Your task to perform on an android device: Go to privacy settings Image 0: 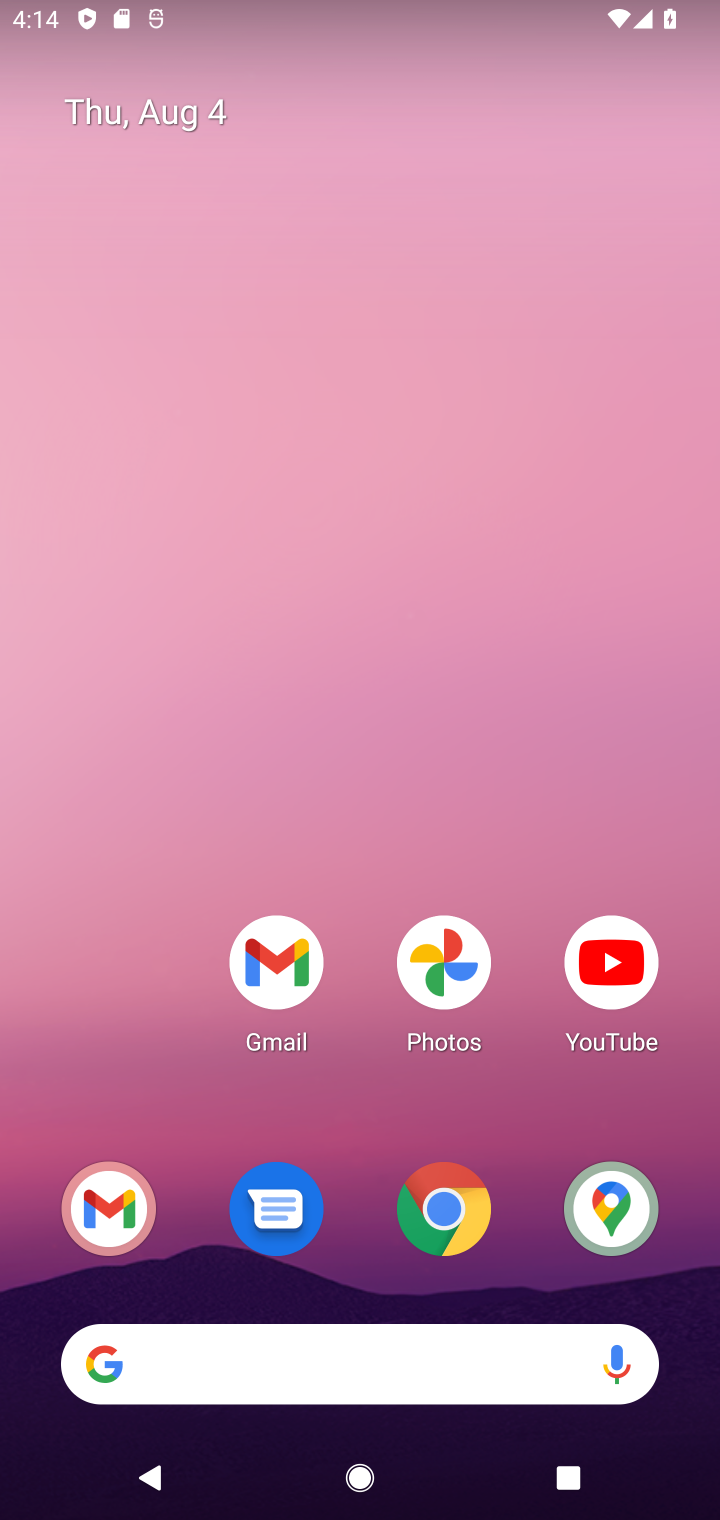
Step 0: drag from (304, 1214) to (315, 157)
Your task to perform on an android device: Go to privacy settings Image 1: 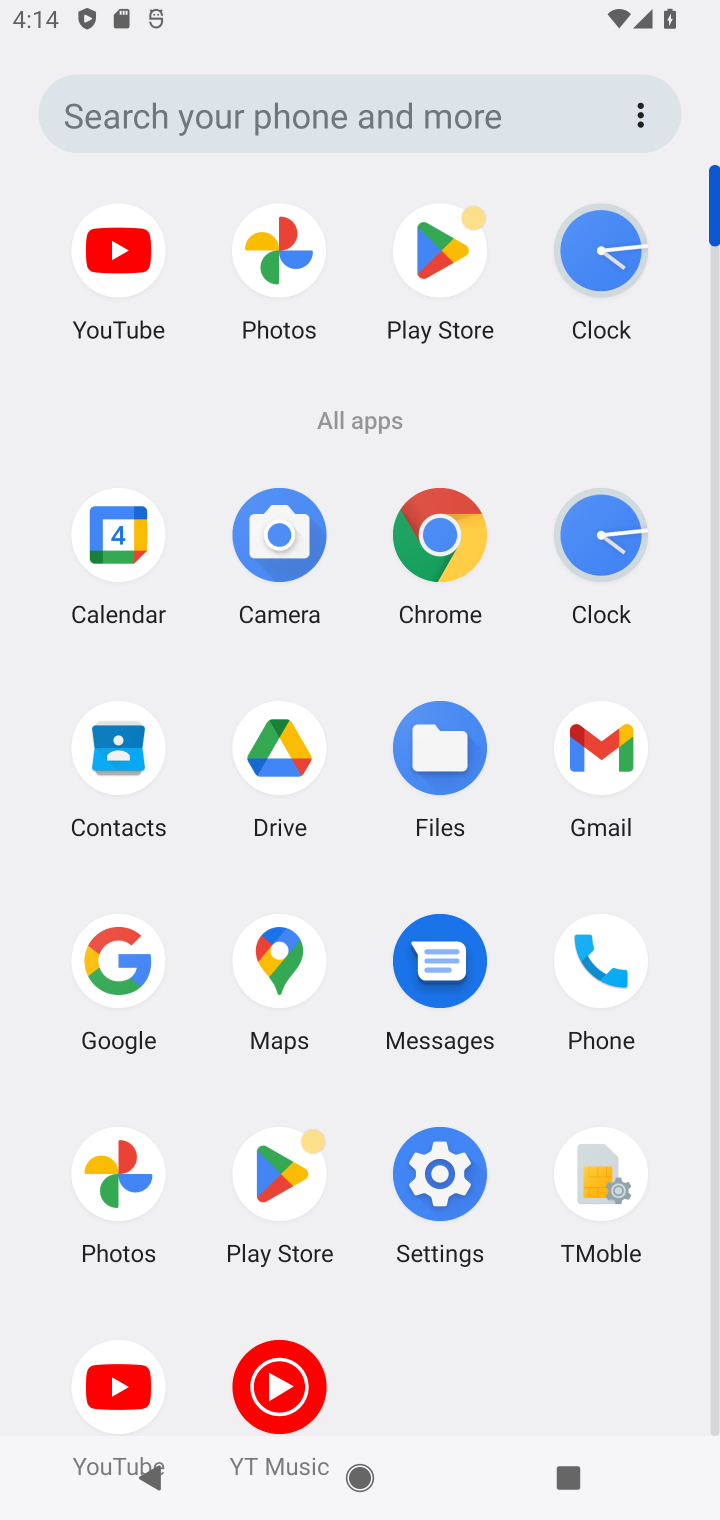
Step 1: click (438, 1175)
Your task to perform on an android device: Go to privacy settings Image 2: 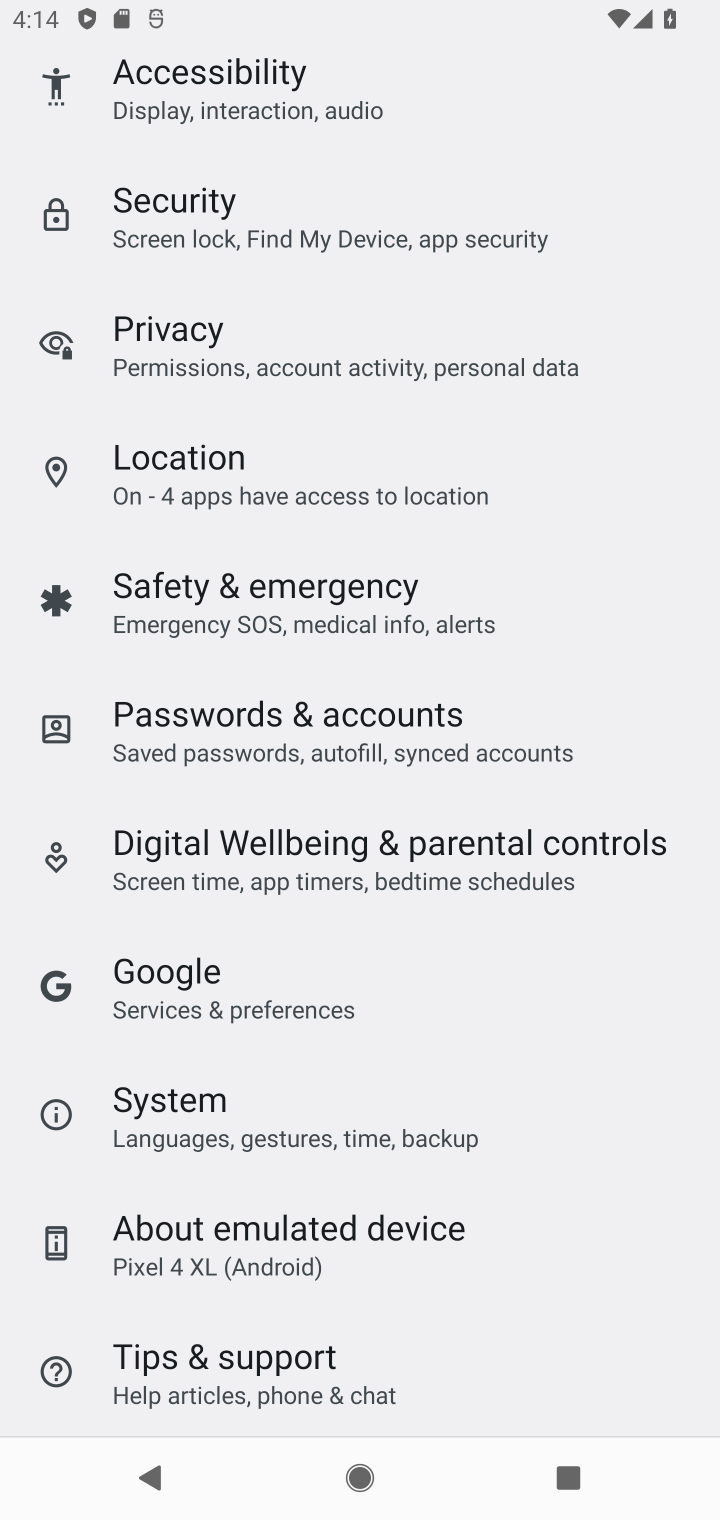
Step 2: click (166, 361)
Your task to perform on an android device: Go to privacy settings Image 3: 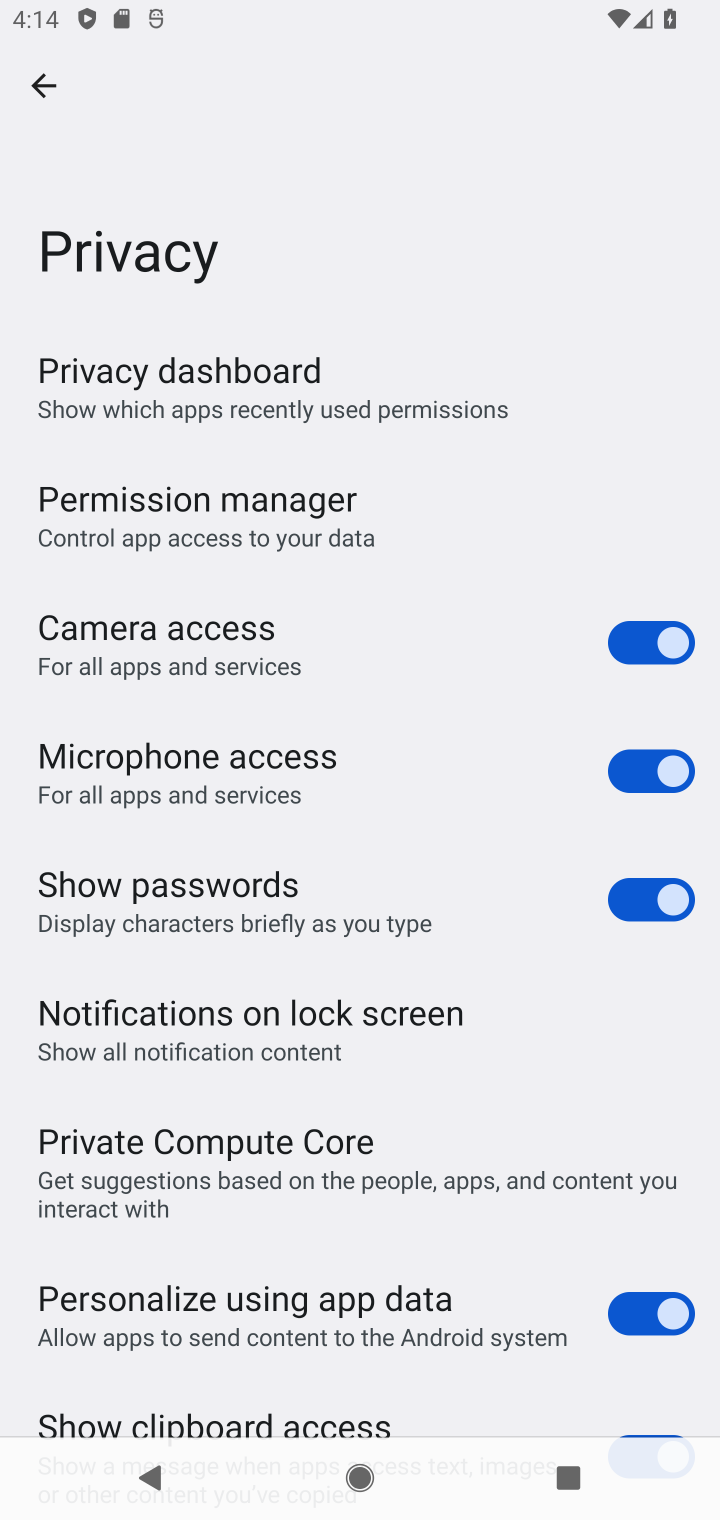
Step 3: task complete